Your task to perform on an android device: Set the phone to "Do not disturb". Image 0: 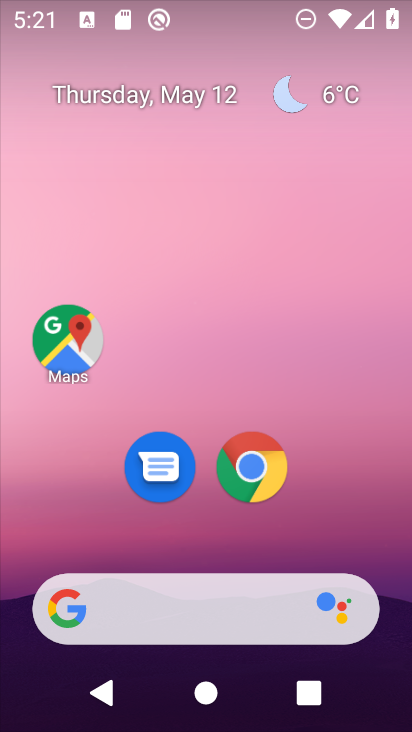
Step 0: click (207, 1)
Your task to perform on an android device: Set the phone to "Do not disturb". Image 1: 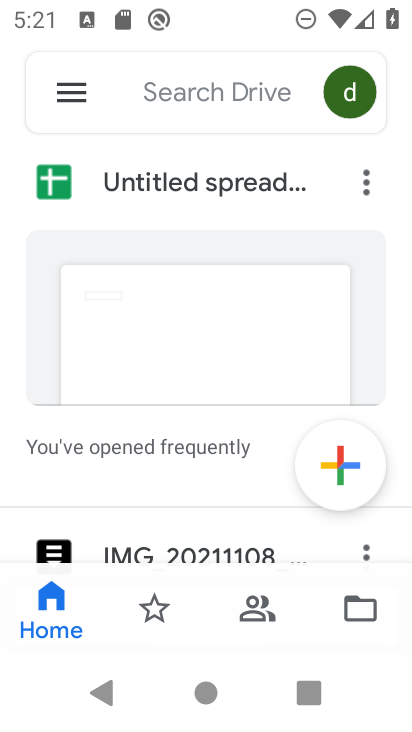
Step 1: press home button
Your task to perform on an android device: Set the phone to "Do not disturb". Image 2: 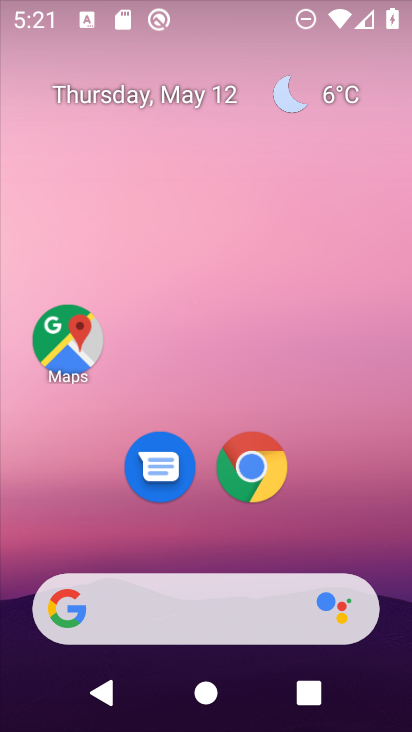
Step 2: drag from (309, 576) to (298, 7)
Your task to perform on an android device: Set the phone to "Do not disturb". Image 3: 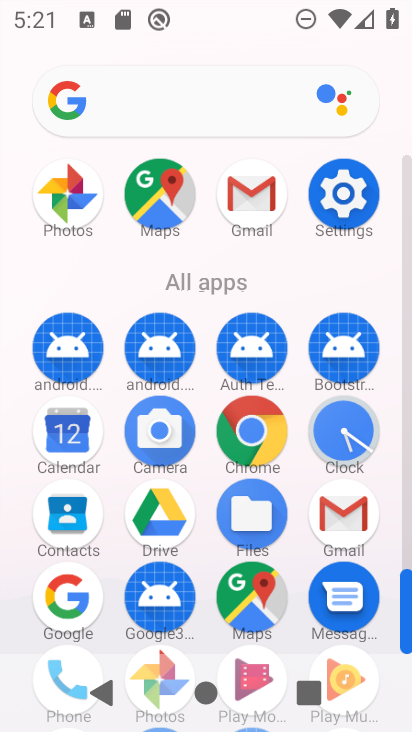
Step 3: click (350, 179)
Your task to perform on an android device: Set the phone to "Do not disturb". Image 4: 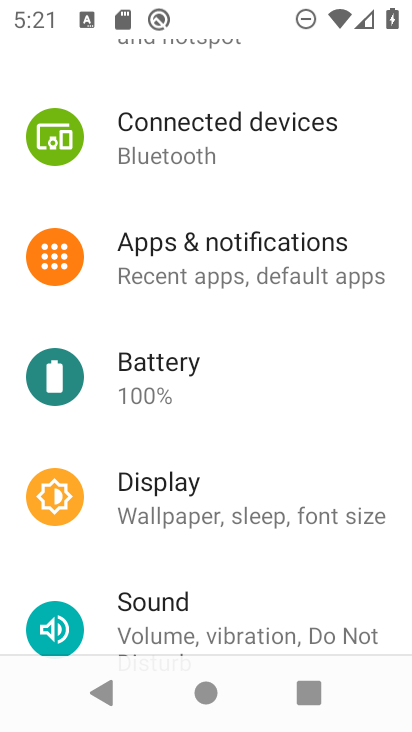
Step 4: click (230, 610)
Your task to perform on an android device: Set the phone to "Do not disturb". Image 5: 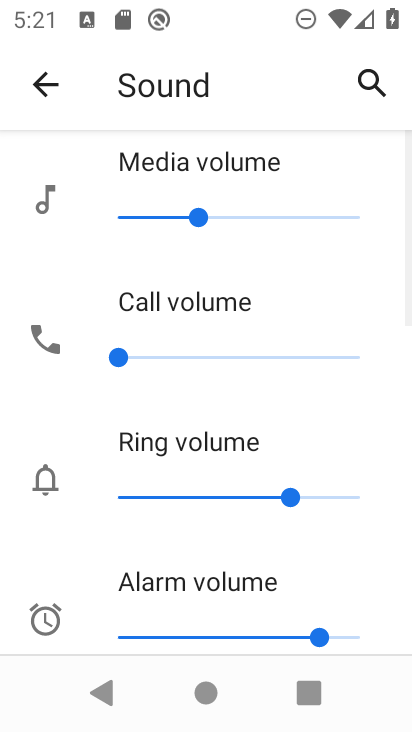
Step 5: drag from (230, 610) to (251, 31)
Your task to perform on an android device: Set the phone to "Do not disturb". Image 6: 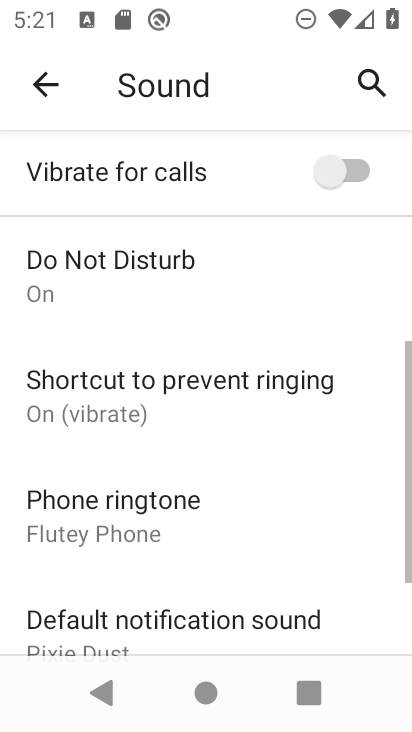
Step 6: drag from (194, 582) to (220, 7)
Your task to perform on an android device: Set the phone to "Do not disturb". Image 7: 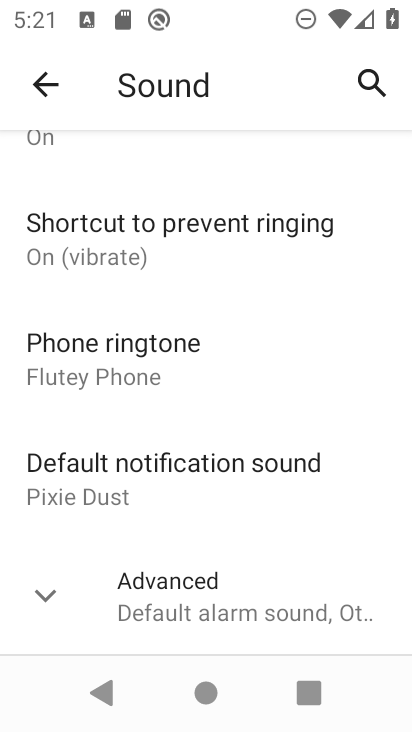
Step 7: drag from (213, 187) to (216, 729)
Your task to perform on an android device: Set the phone to "Do not disturb". Image 8: 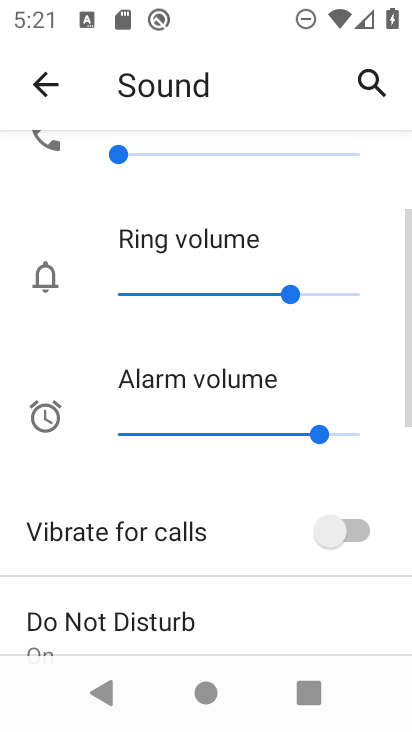
Step 8: click (137, 629)
Your task to perform on an android device: Set the phone to "Do not disturb". Image 9: 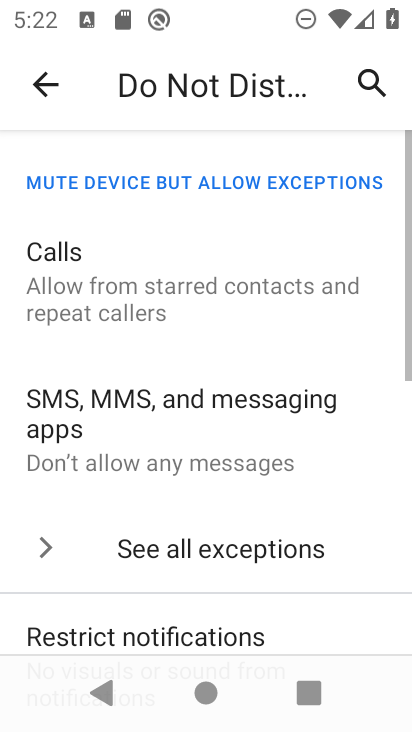
Step 9: task complete